Your task to perform on an android device: Show me my notifications Image 0: 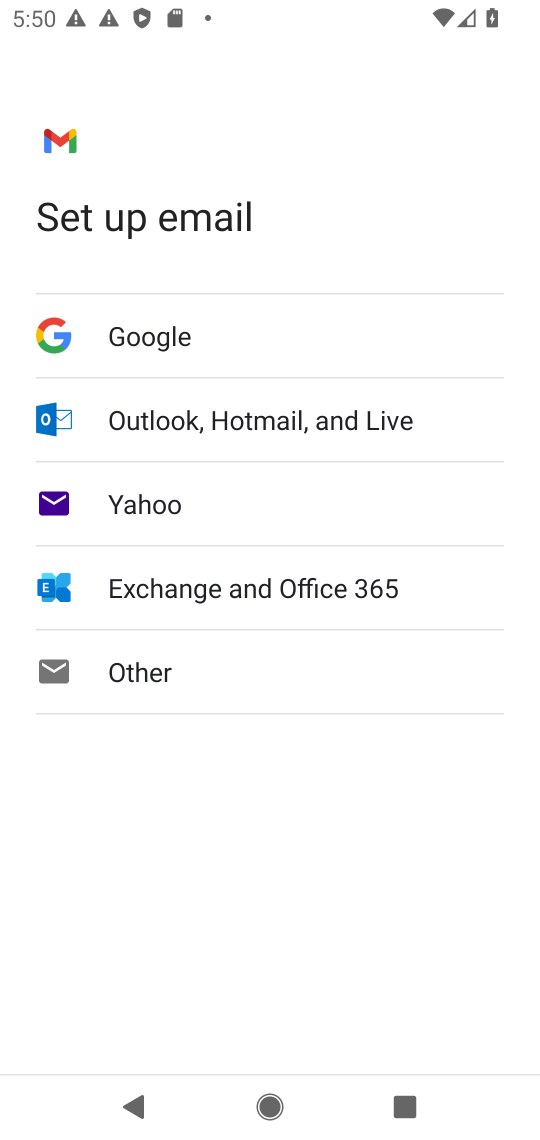
Step 0: drag from (183, 16) to (111, 994)
Your task to perform on an android device: Show me my notifications Image 1: 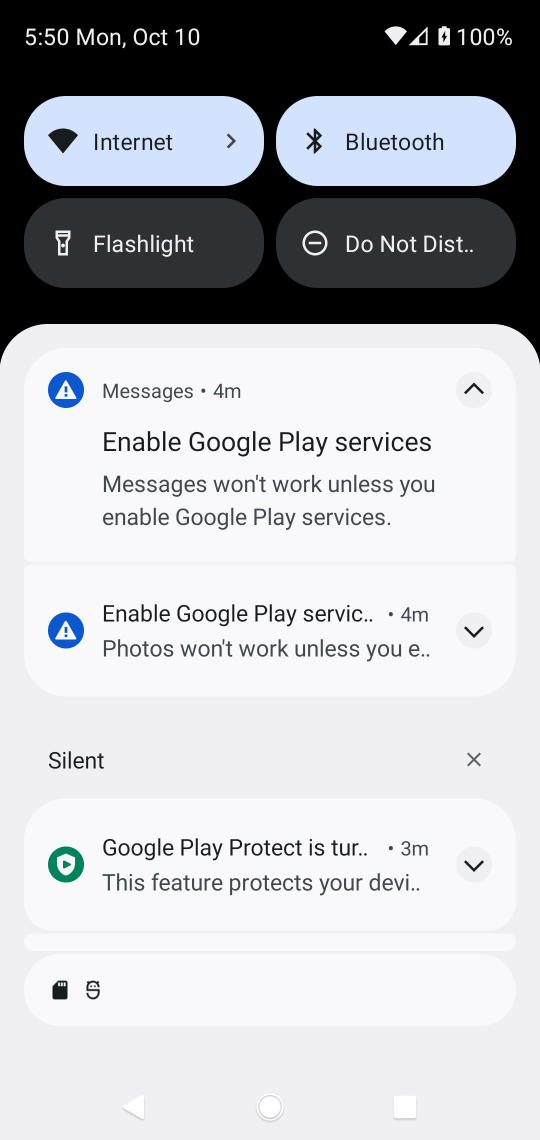
Step 1: drag from (431, 381) to (336, 1087)
Your task to perform on an android device: Show me my notifications Image 2: 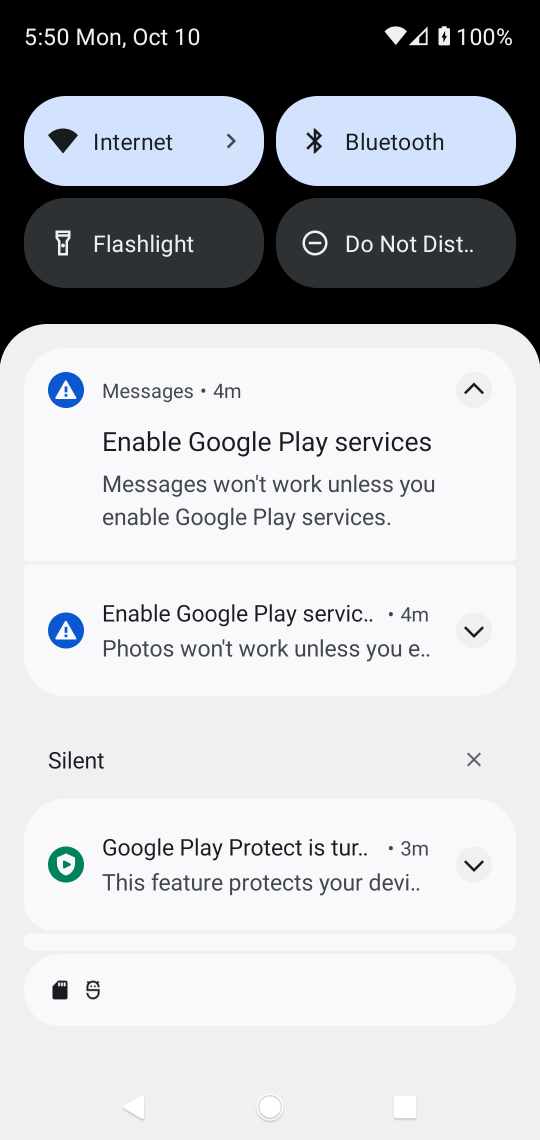
Step 2: drag from (308, 520) to (230, 1130)
Your task to perform on an android device: Show me my notifications Image 3: 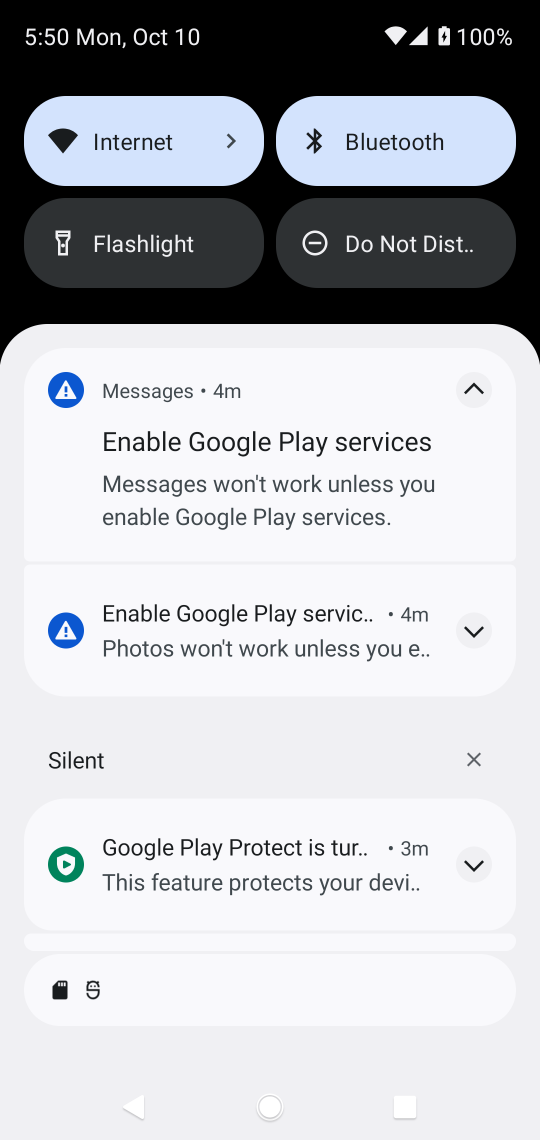
Step 3: drag from (436, 505) to (51, 485)
Your task to perform on an android device: Show me my notifications Image 4: 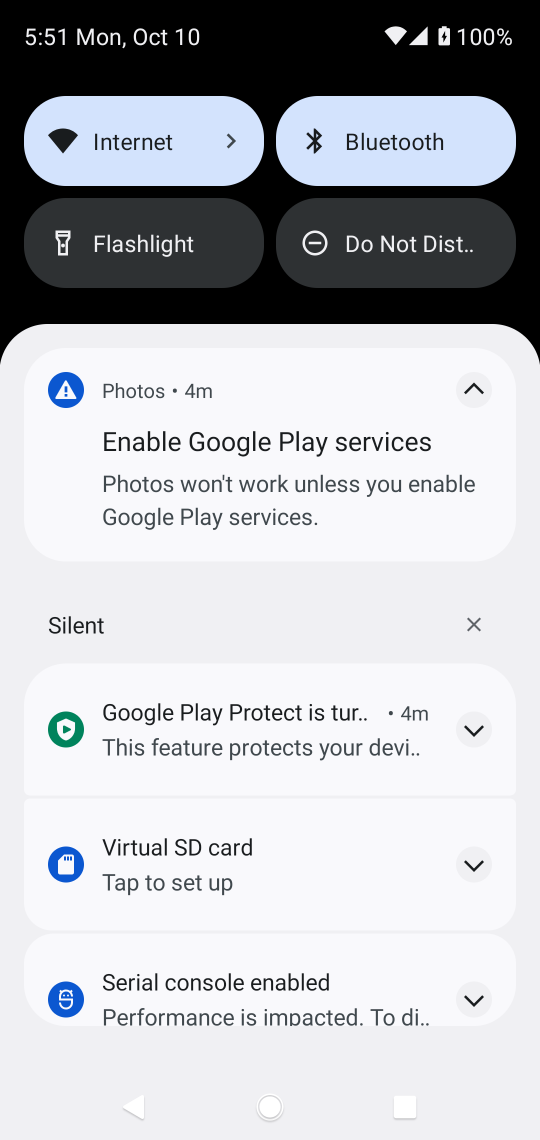
Step 4: drag from (454, 414) to (50, 407)
Your task to perform on an android device: Show me my notifications Image 5: 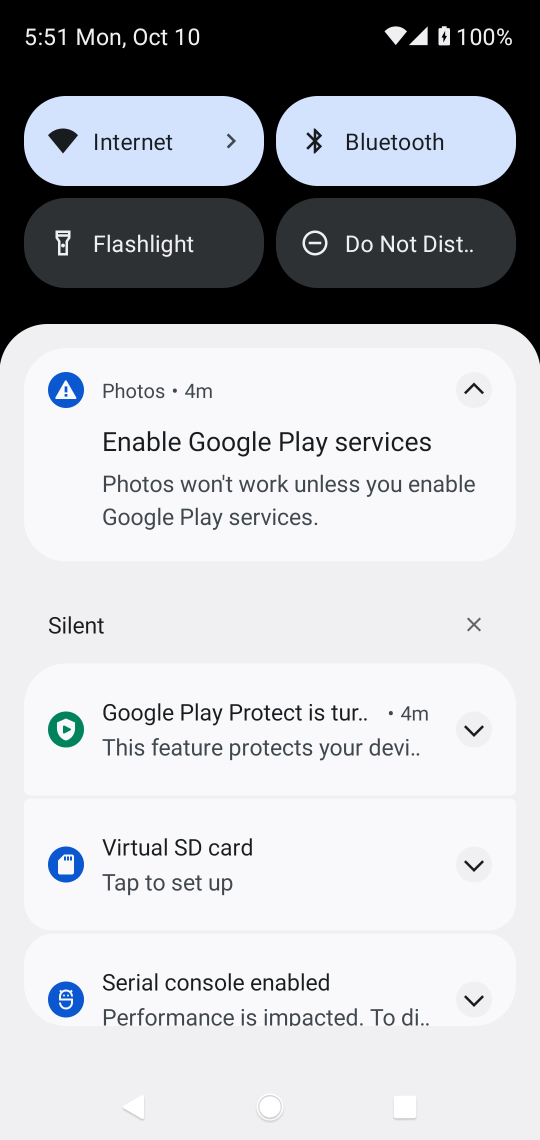
Step 5: drag from (447, 700) to (106, 682)
Your task to perform on an android device: Show me my notifications Image 6: 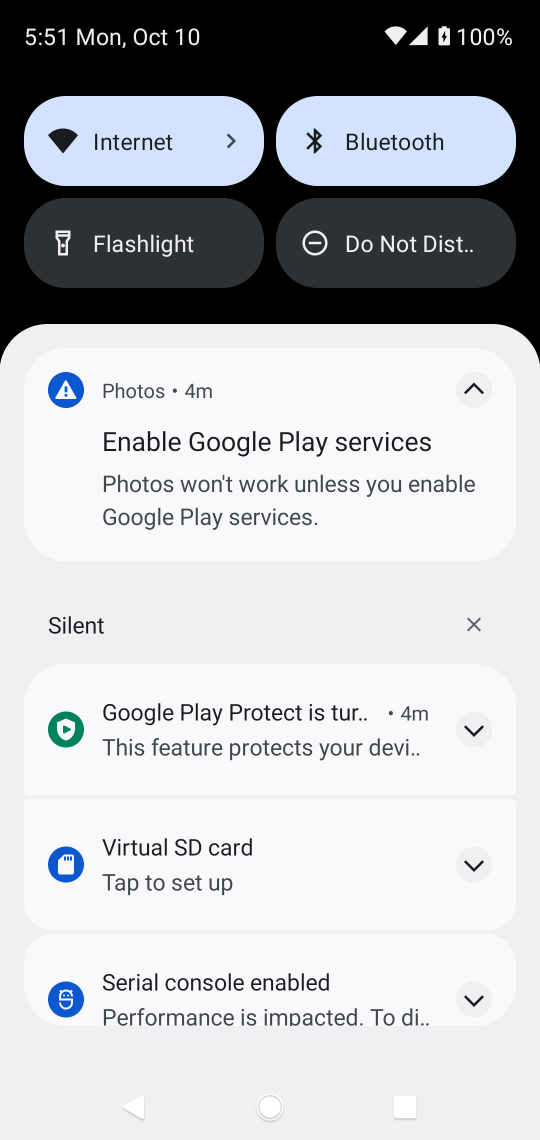
Step 6: drag from (372, 470) to (121, 472)
Your task to perform on an android device: Show me my notifications Image 7: 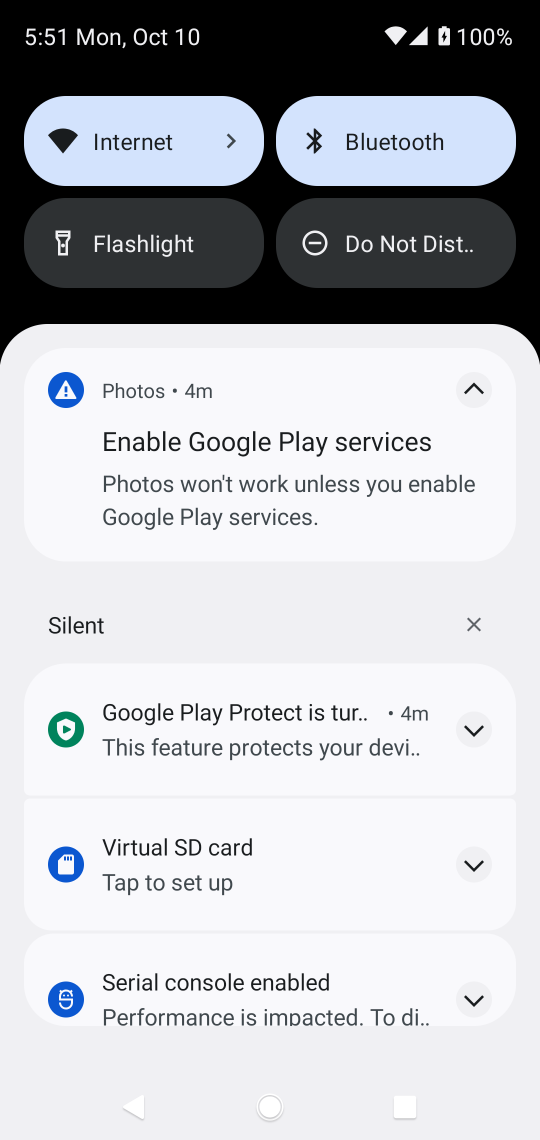
Step 7: drag from (379, 734) to (160, 734)
Your task to perform on an android device: Show me my notifications Image 8: 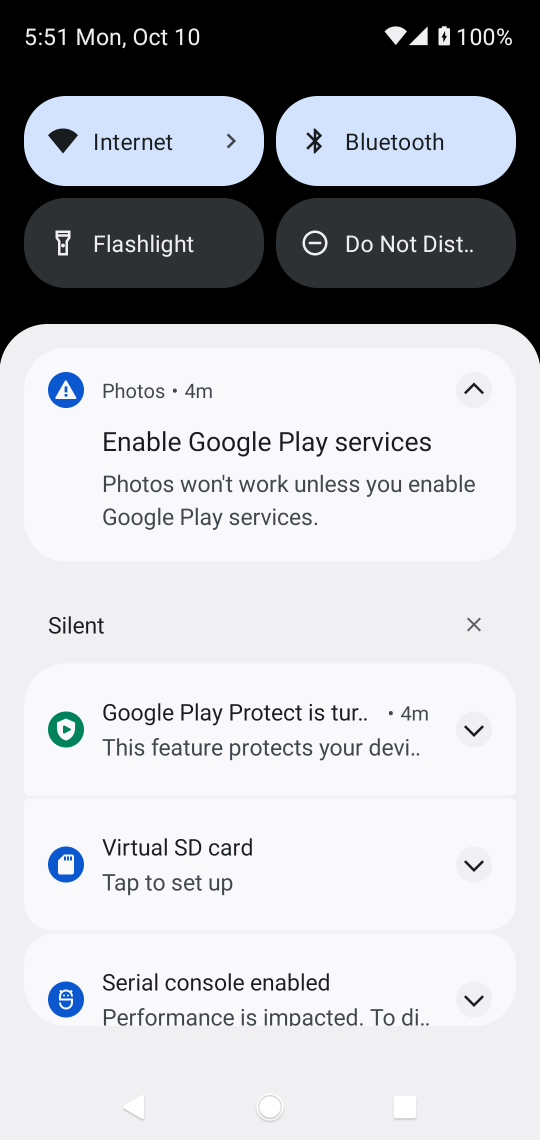
Step 8: drag from (277, 1093) to (365, 611)
Your task to perform on an android device: Show me my notifications Image 9: 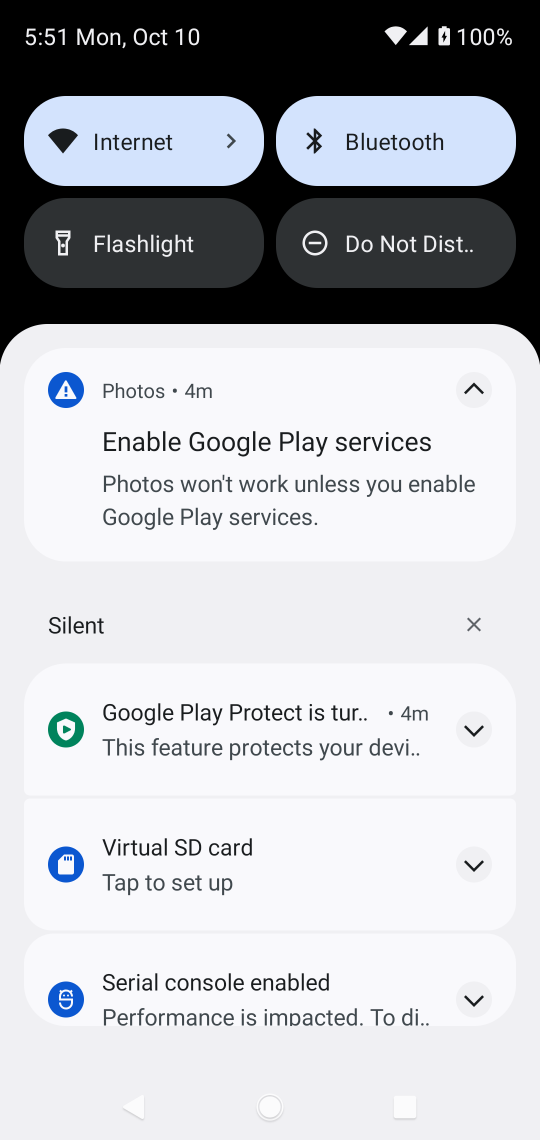
Step 9: click (303, 511)
Your task to perform on an android device: Show me my notifications Image 10: 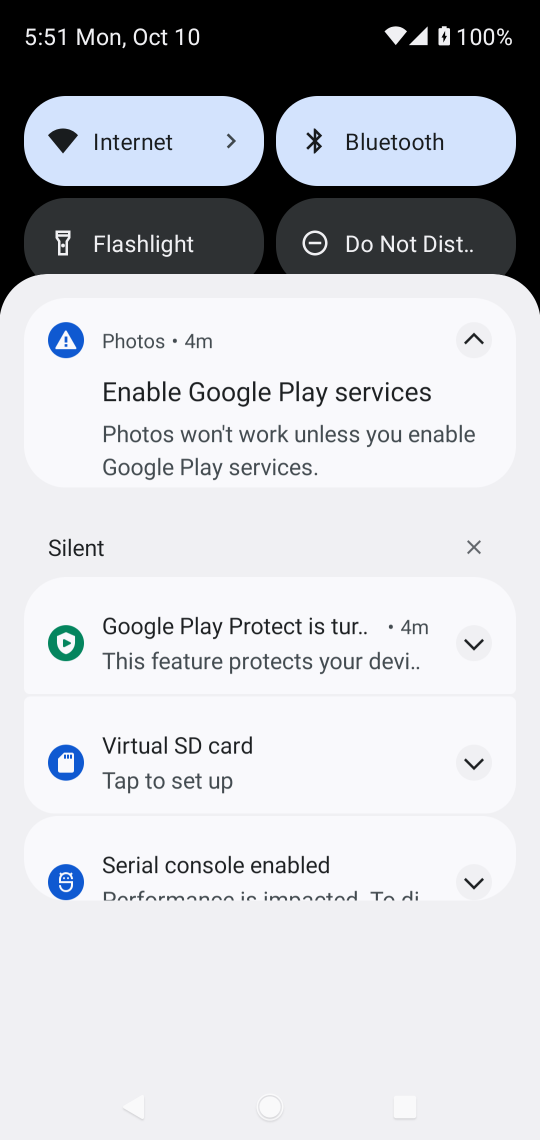
Step 10: click (268, 474)
Your task to perform on an android device: Show me my notifications Image 11: 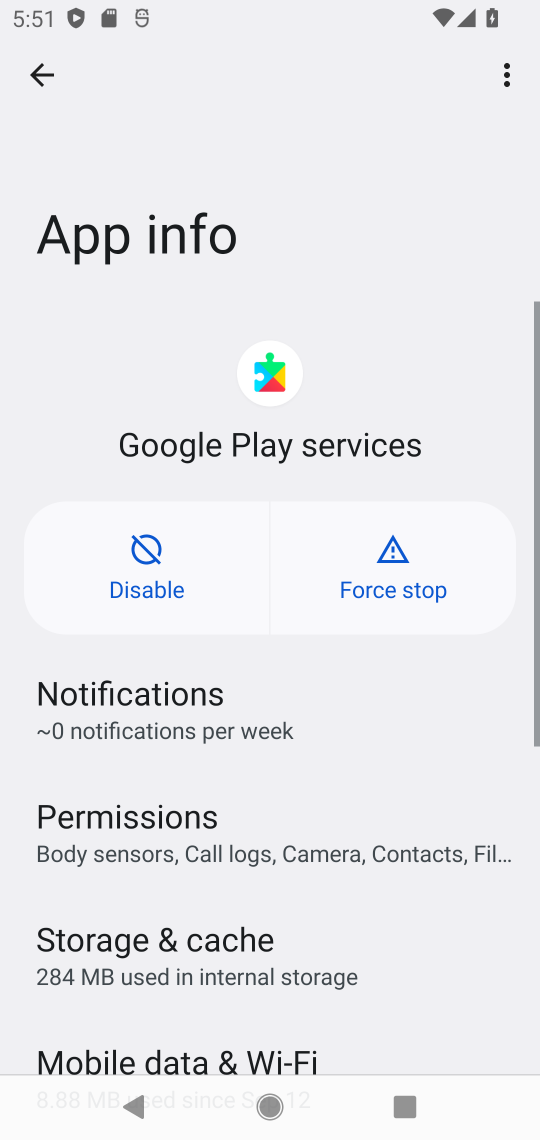
Step 11: drag from (249, 957) to (309, 513)
Your task to perform on an android device: Show me my notifications Image 12: 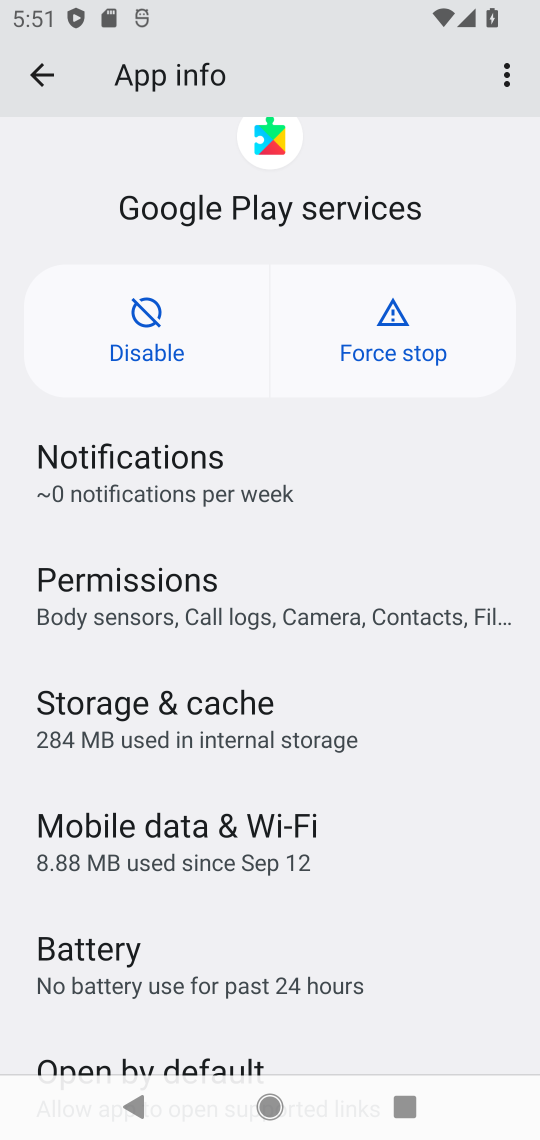
Step 12: click (261, 450)
Your task to perform on an android device: Show me my notifications Image 13: 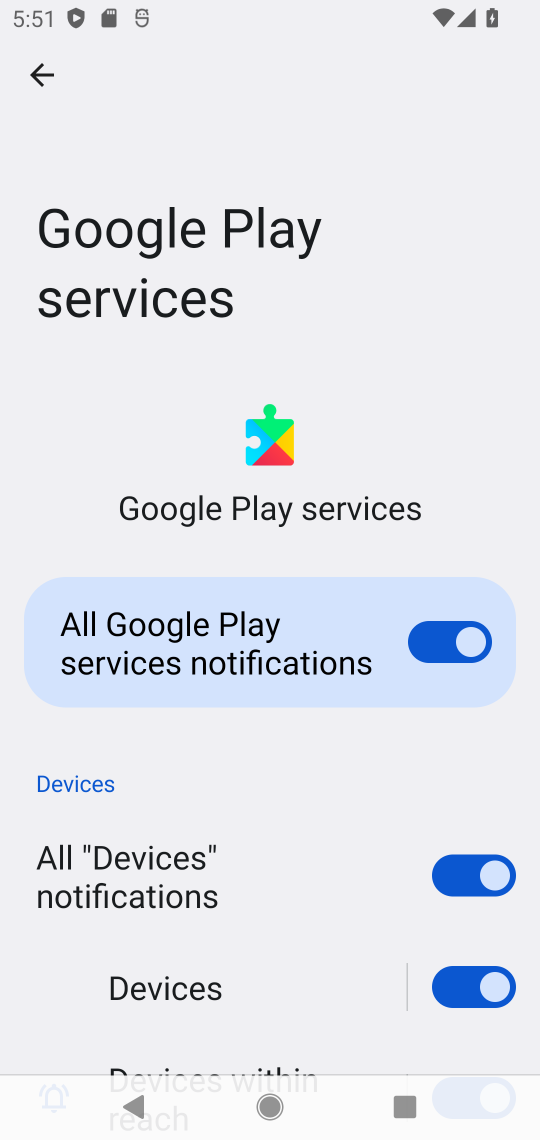
Step 13: click (29, 93)
Your task to perform on an android device: Show me my notifications Image 14: 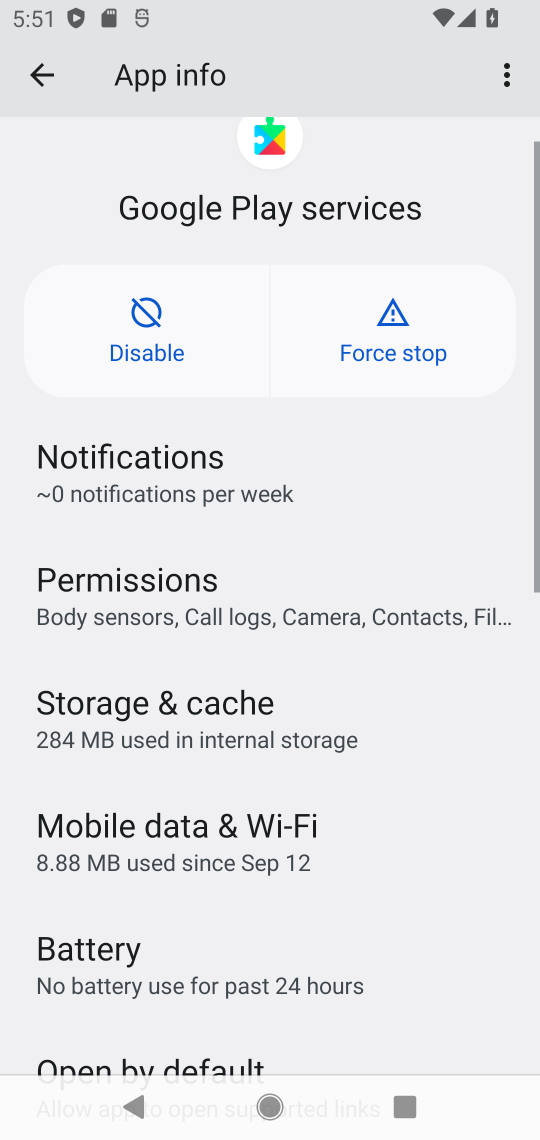
Step 14: click (29, 93)
Your task to perform on an android device: Show me my notifications Image 15: 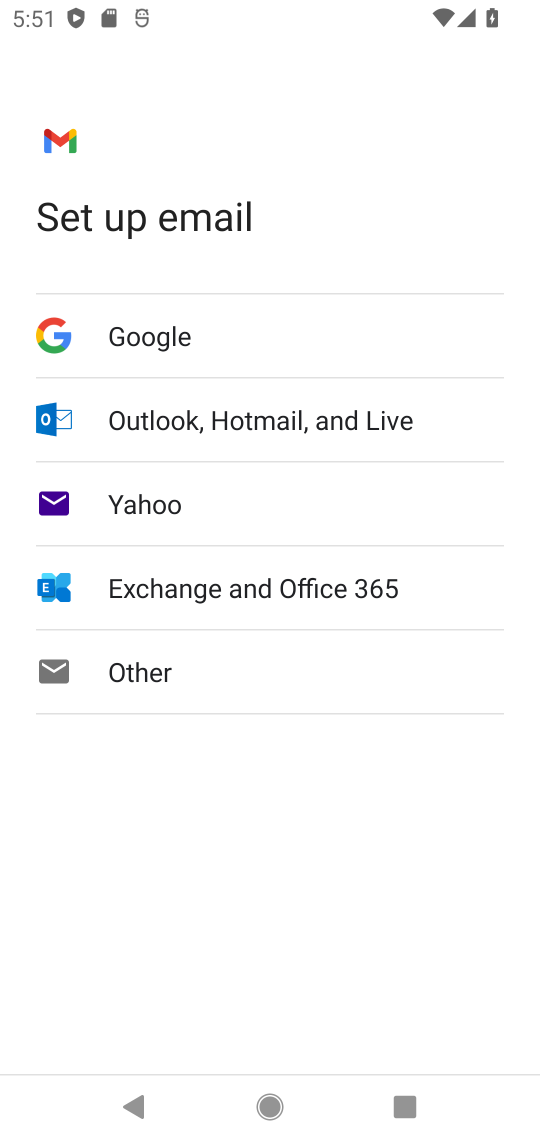
Step 15: click (148, 1099)
Your task to perform on an android device: Show me my notifications Image 16: 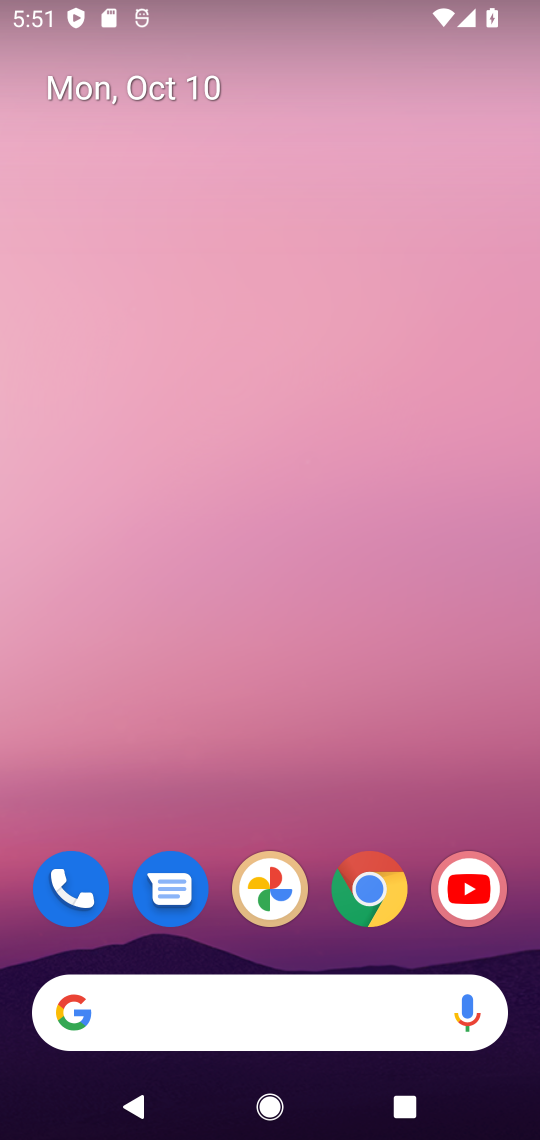
Step 16: task complete